Your task to perform on an android device: toggle location history Image 0: 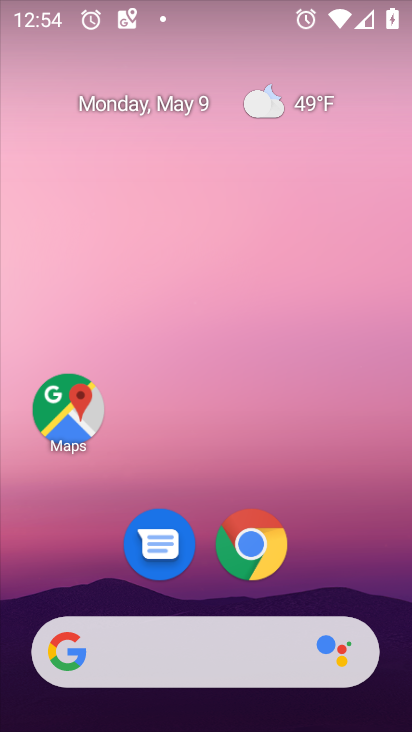
Step 0: drag from (209, 649) to (199, 78)
Your task to perform on an android device: toggle location history Image 1: 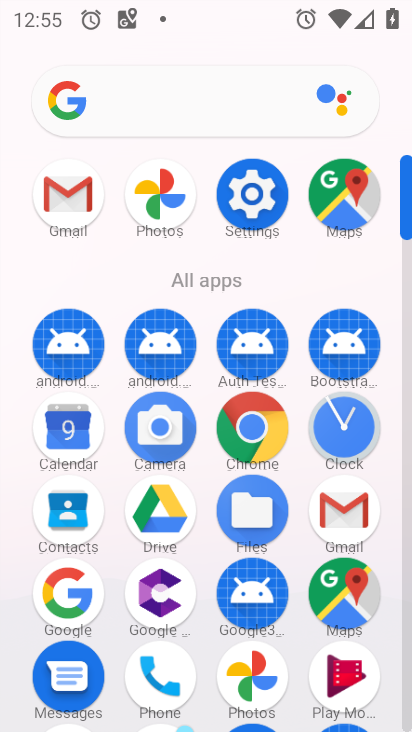
Step 1: click (273, 193)
Your task to perform on an android device: toggle location history Image 2: 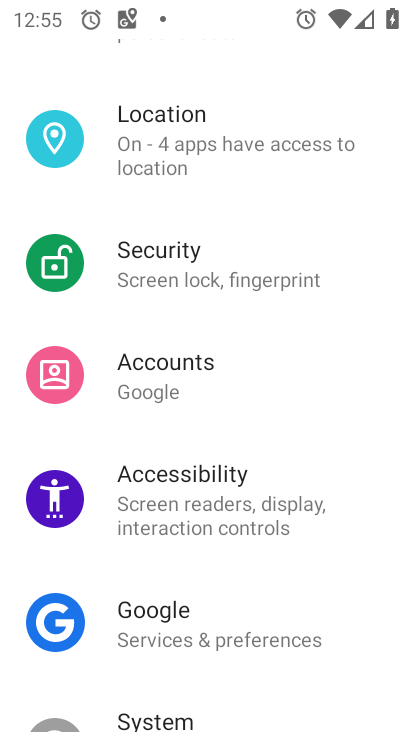
Step 2: drag from (167, 569) to (182, 624)
Your task to perform on an android device: toggle location history Image 3: 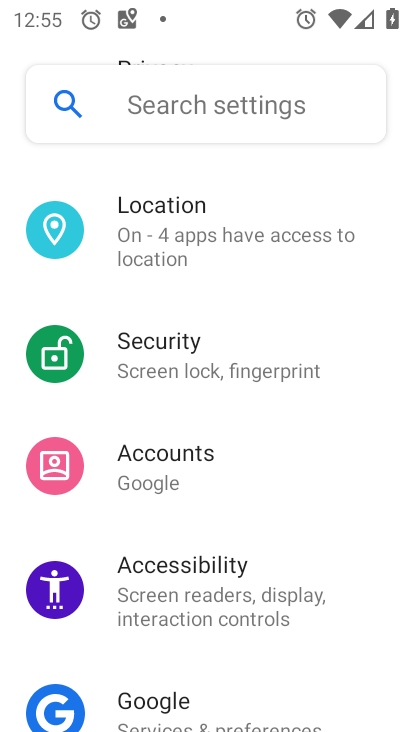
Step 3: click (182, 251)
Your task to perform on an android device: toggle location history Image 4: 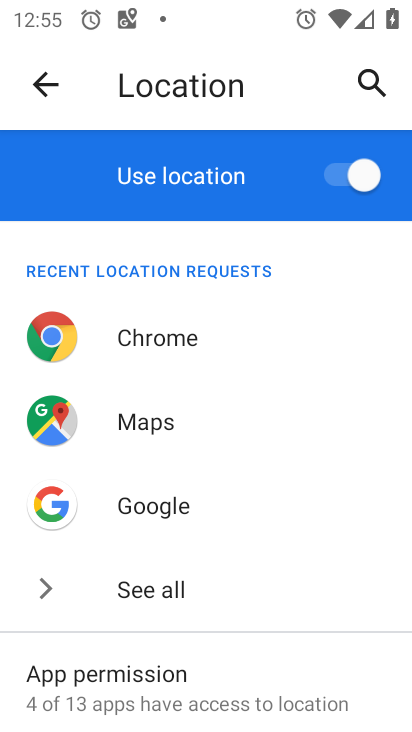
Step 4: drag from (189, 585) to (181, 72)
Your task to perform on an android device: toggle location history Image 5: 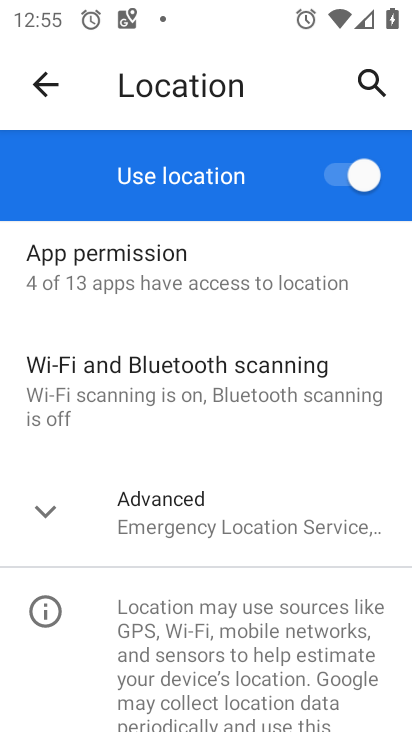
Step 5: click (175, 510)
Your task to perform on an android device: toggle location history Image 6: 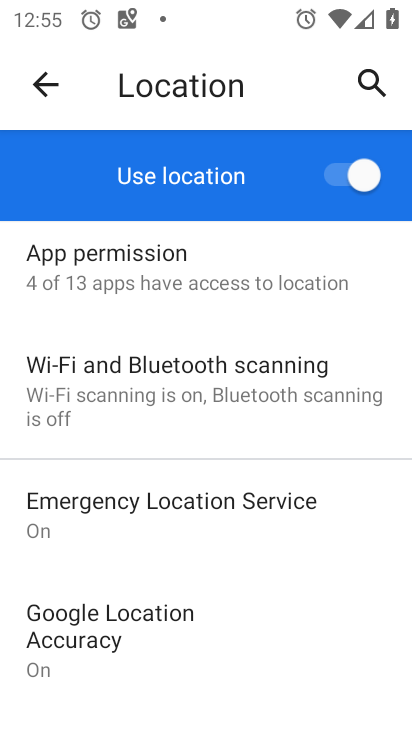
Step 6: drag from (179, 665) to (164, 259)
Your task to perform on an android device: toggle location history Image 7: 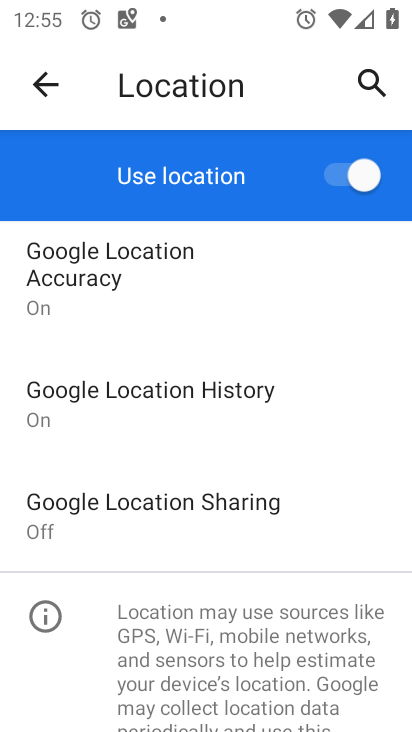
Step 7: click (208, 414)
Your task to perform on an android device: toggle location history Image 8: 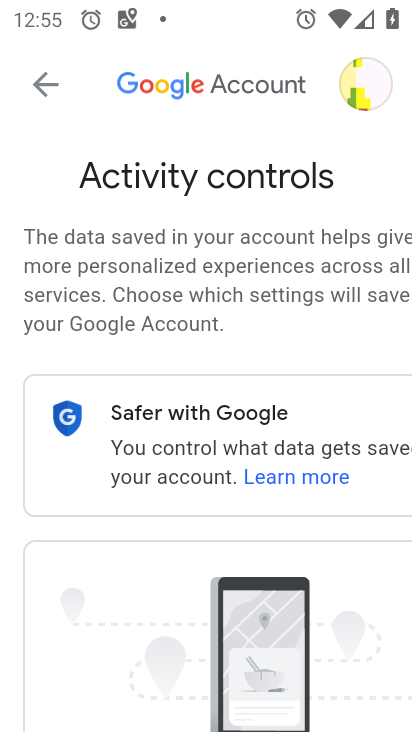
Step 8: drag from (245, 525) to (220, 219)
Your task to perform on an android device: toggle location history Image 9: 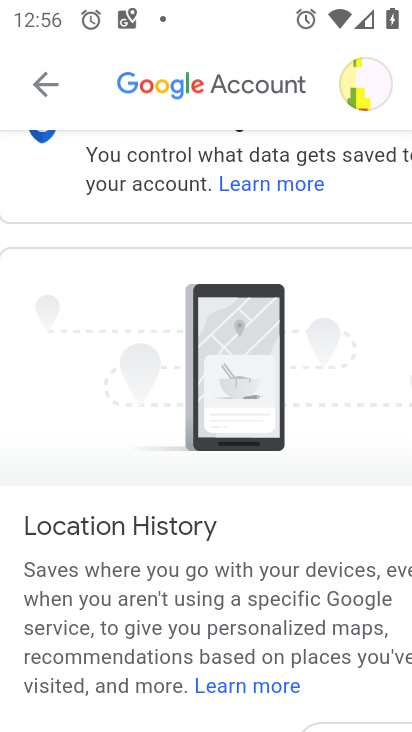
Step 9: drag from (327, 641) to (211, 125)
Your task to perform on an android device: toggle location history Image 10: 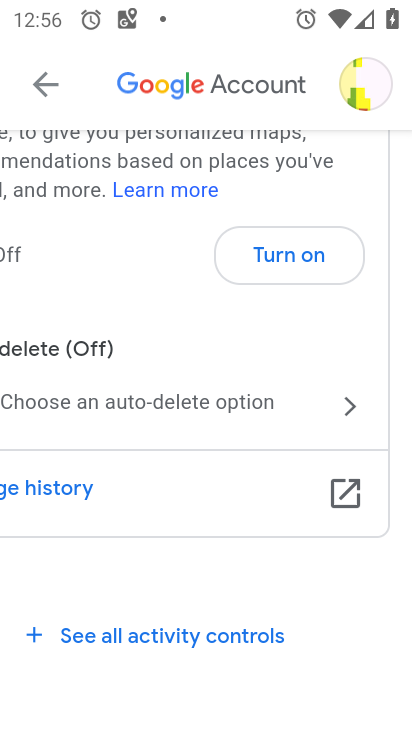
Step 10: click (266, 278)
Your task to perform on an android device: toggle location history Image 11: 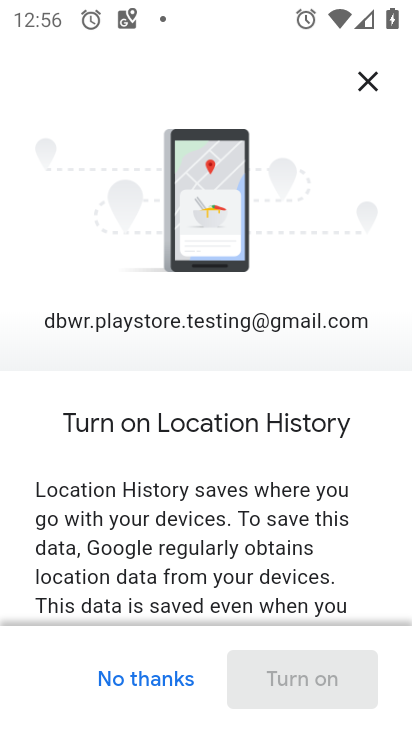
Step 11: drag from (272, 545) to (158, 186)
Your task to perform on an android device: toggle location history Image 12: 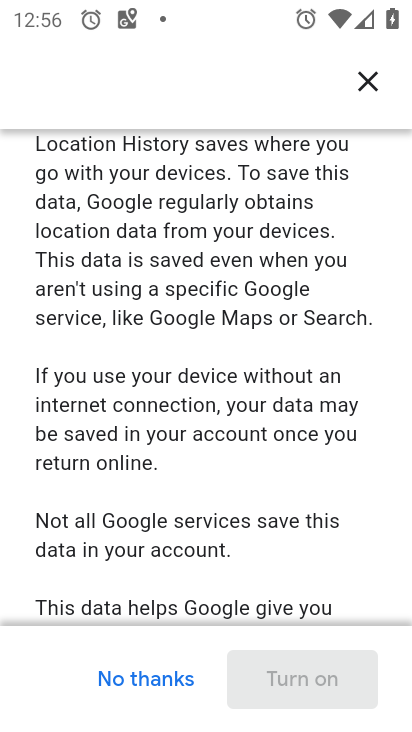
Step 12: drag from (167, 442) to (2, 353)
Your task to perform on an android device: toggle location history Image 13: 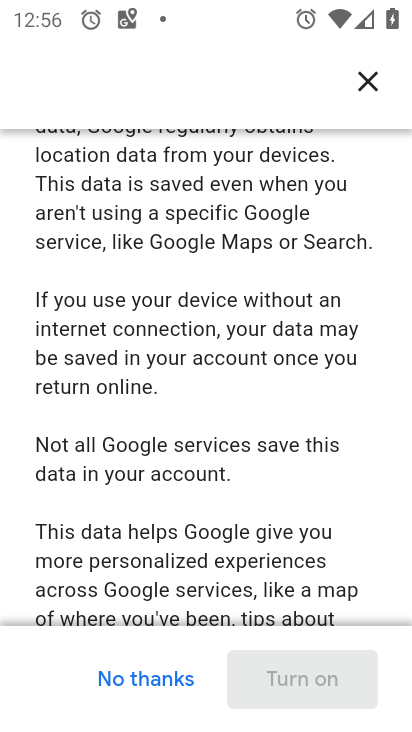
Step 13: drag from (181, 542) to (391, 11)
Your task to perform on an android device: toggle location history Image 14: 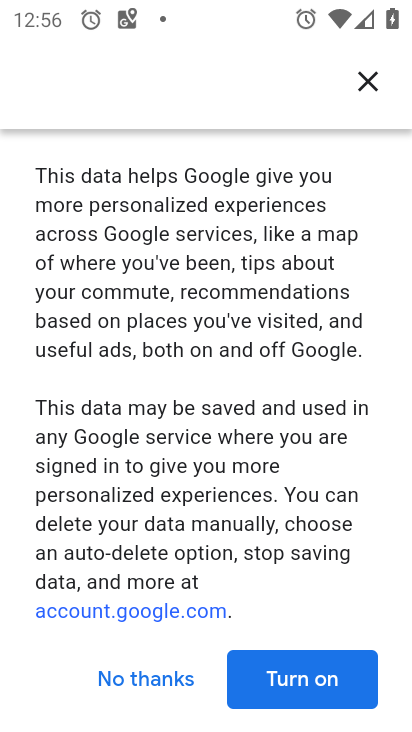
Step 14: click (363, 692)
Your task to perform on an android device: toggle location history Image 15: 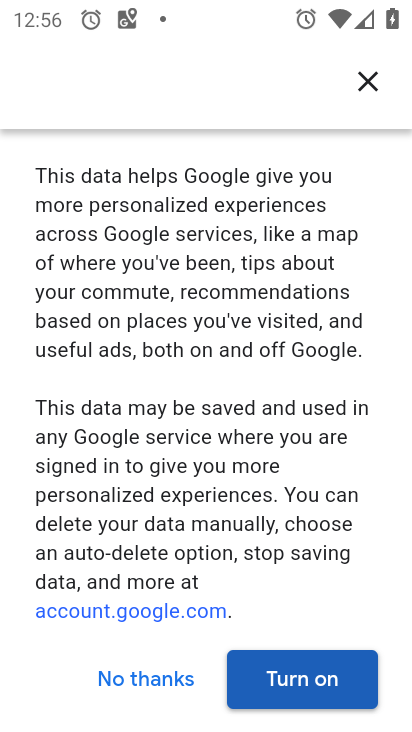
Step 15: click (363, 692)
Your task to perform on an android device: toggle location history Image 16: 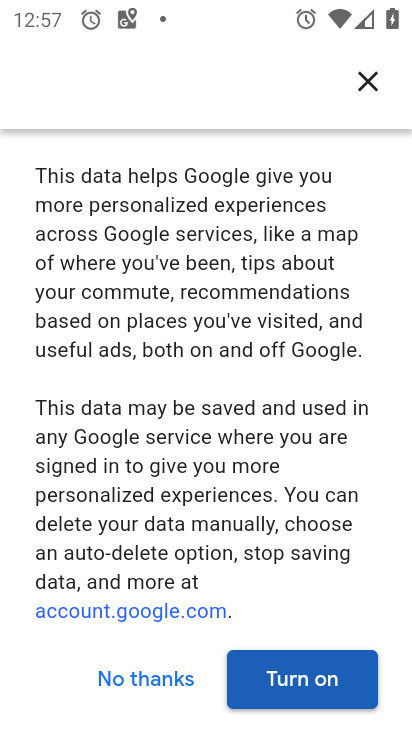
Step 16: click (273, 678)
Your task to perform on an android device: toggle location history Image 17: 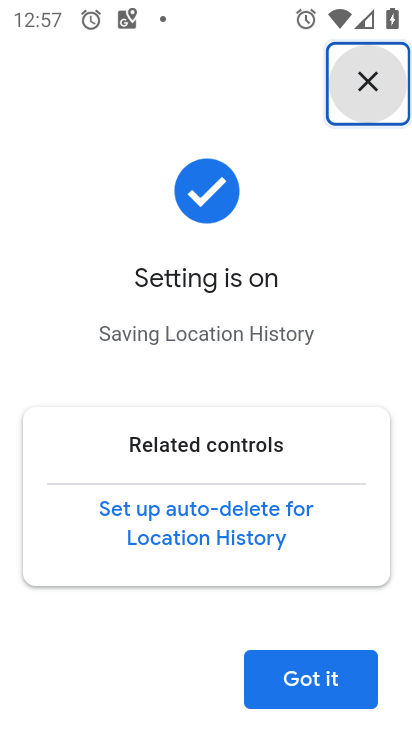
Step 17: click (333, 689)
Your task to perform on an android device: toggle location history Image 18: 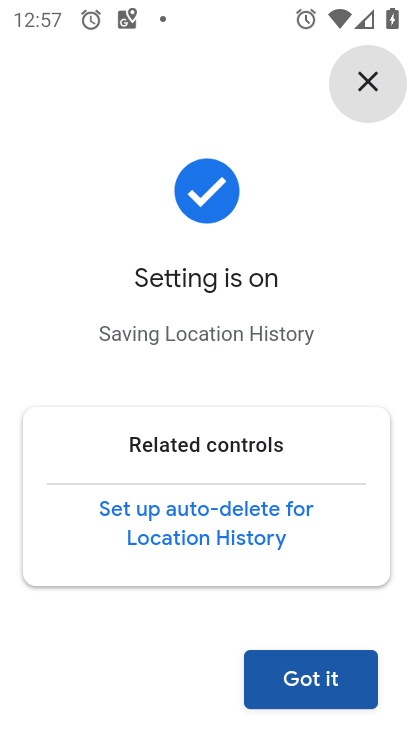
Step 18: task complete